Your task to perform on an android device: What's the weather? Image 0: 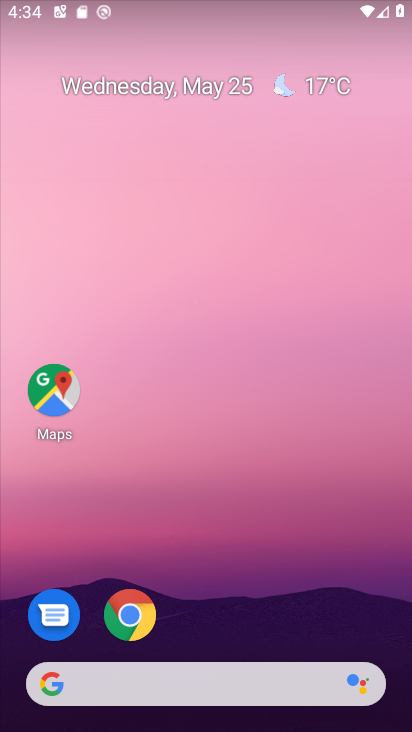
Step 0: click (324, 84)
Your task to perform on an android device: What's the weather? Image 1: 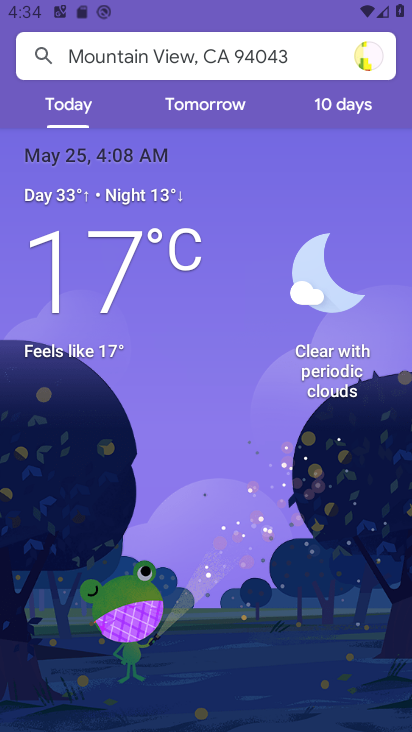
Step 1: task complete